Your task to perform on an android device: turn off notifications in google photos Image 0: 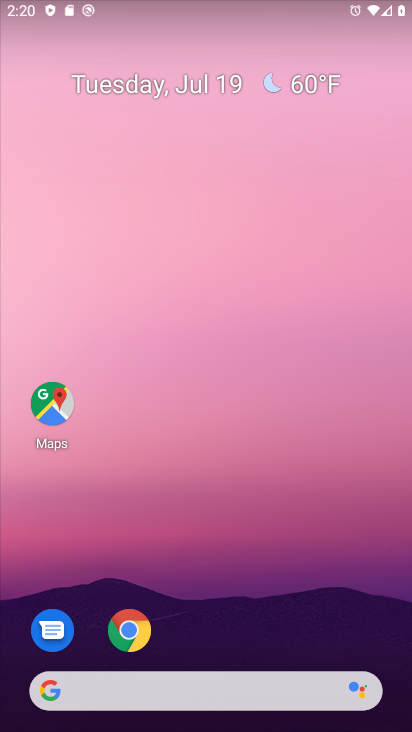
Step 0: drag from (339, 667) to (228, 267)
Your task to perform on an android device: turn off notifications in google photos Image 1: 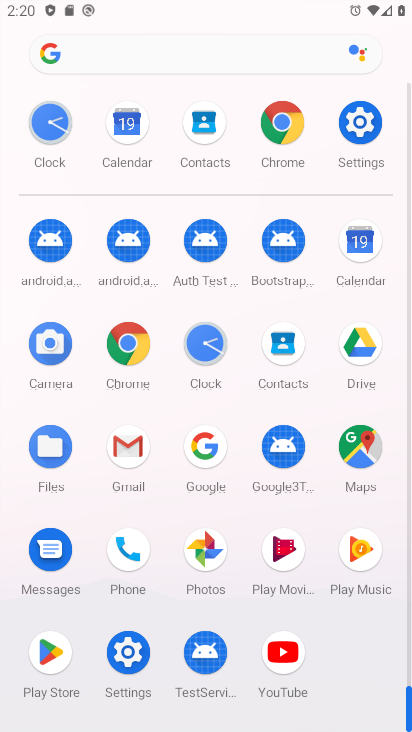
Step 1: click (203, 572)
Your task to perform on an android device: turn off notifications in google photos Image 2: 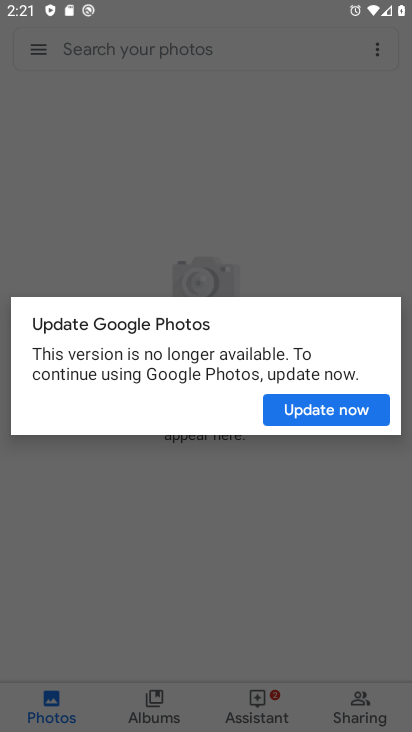
Step 2: click (218, 180)
Your task to perform on an android device: turn off notifications in google photos Image 3: 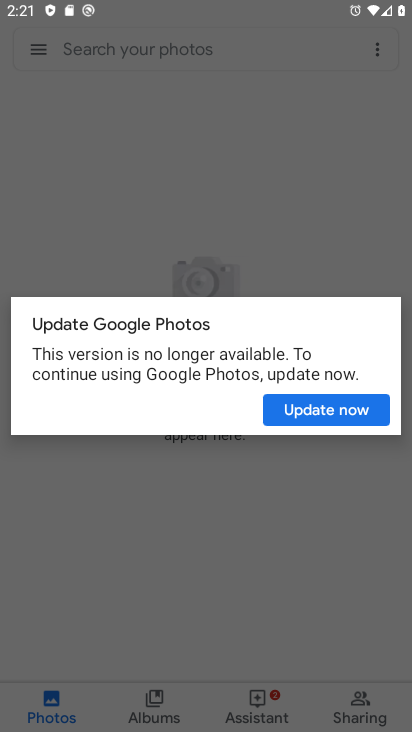
Step 3: click (219, 179)
Your task to perform on an android device: turn off notifications in google photos Image 4: 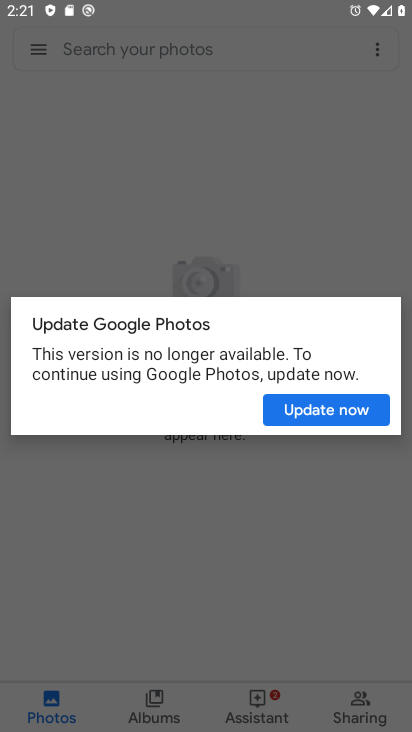
Step 4: click (166, 196)
Your task to perform on an android device: turn off notifications in google photos Image 5: 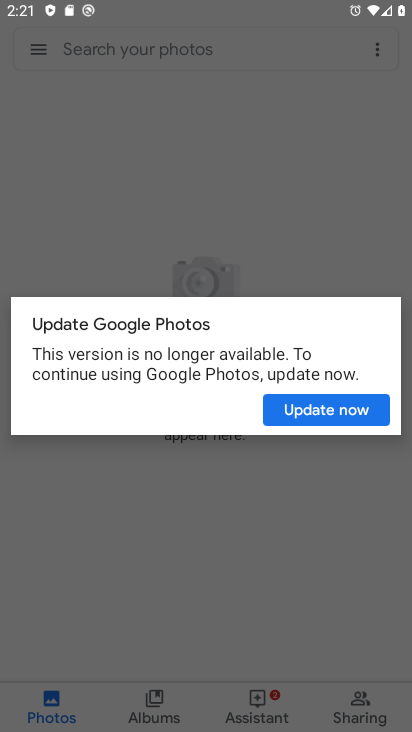
Step 5: click (165, 197)
Your task to perform on an android device: turn off notifications in google photos Image 6: 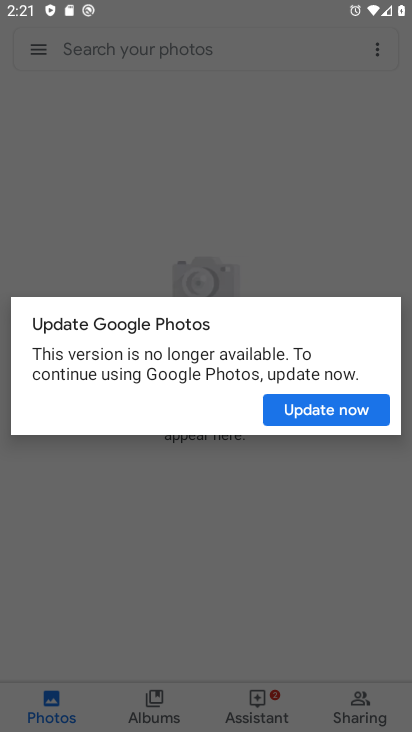
Step 6: click (165, 197)
Your task to perform on an android device: turn off notifications in google photos Image 7: 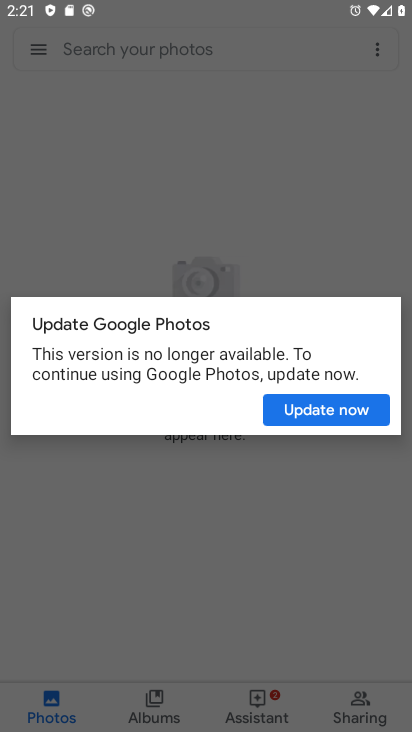
Step 7: click (330, 392)
Your task to perform on an android device: turn off notifications in google photos Image 8: 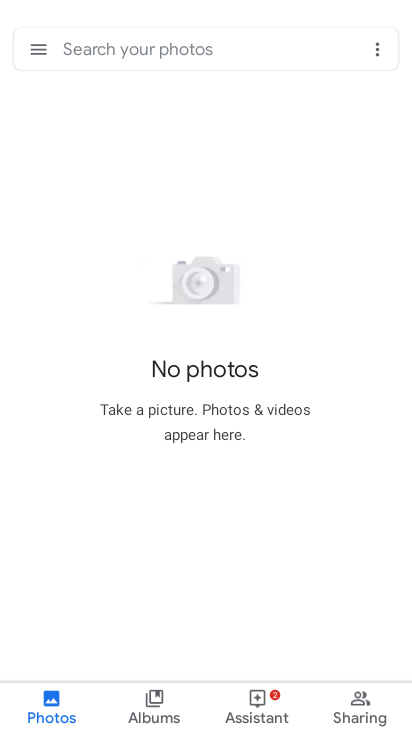
Step 8: click (330, 393)
Your task to perform on an android device: turn off notifications in google photos Image 9: 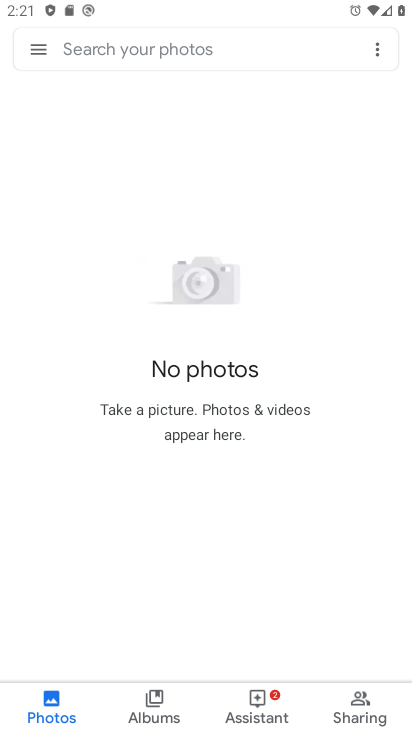
Step 9: click (38, 44)
Your task to perform on an android device: turn off notifications in google photos Image 10: 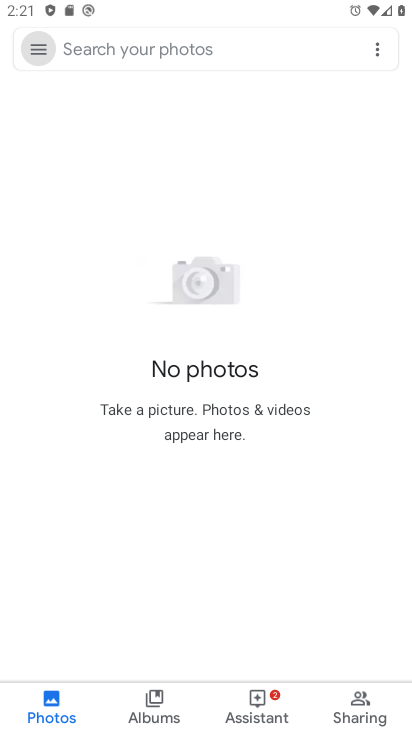
Step 10: click (37, 46)
Your task to perform on an android device: turn off notifications in google photos Image 11: 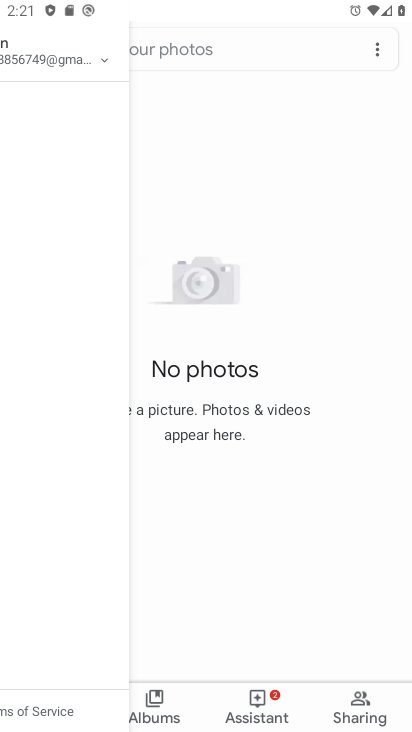
Step 11: click (36, 47)
Your task to perform on an android device: turn off notifications in google photos Image 12: 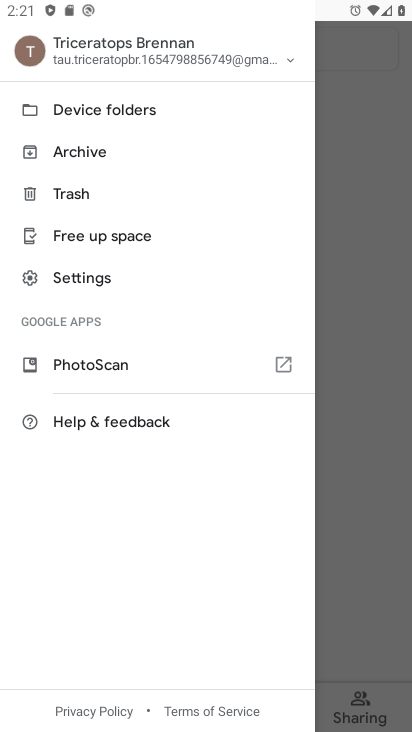
Step 12: drag from (36, 47) to (79, 279)
Your task to perform on an android device: turn off notifications in google photos Image 13: 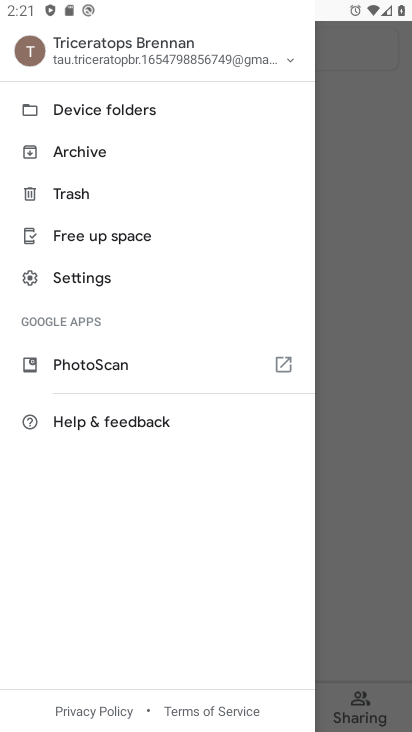
Step 13: click (79, 278)
Your task to perform on an android device: turn off notifications in google photos Image 14: 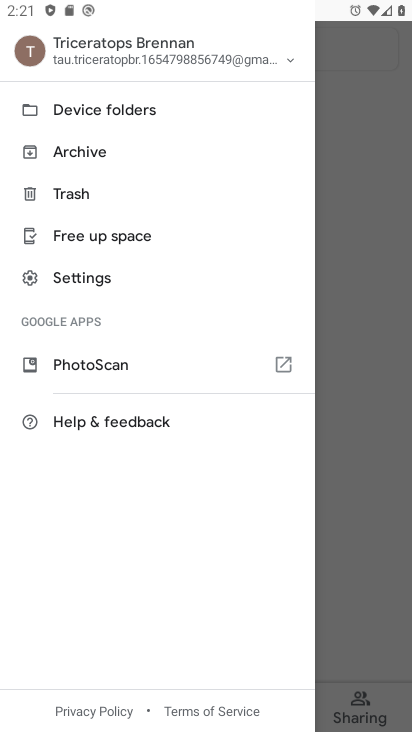
Step 14: click (79, 278)
Your task to perform on an android device: turn off notifications in google photos Image 15: 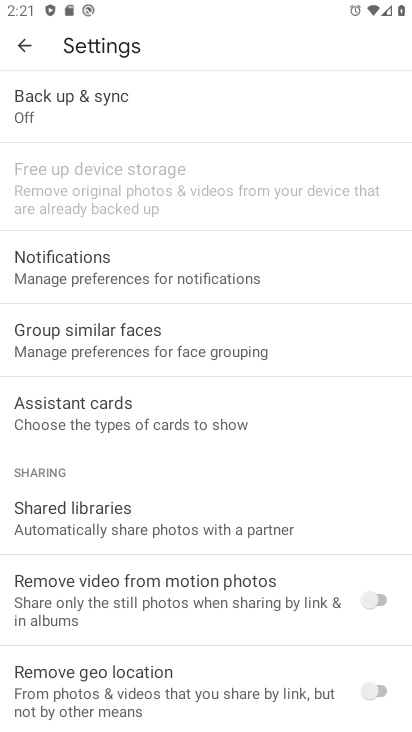
Step 15: click (65, 273)
Your task to perform on an android device: turn off notifications in google photos Image 16: 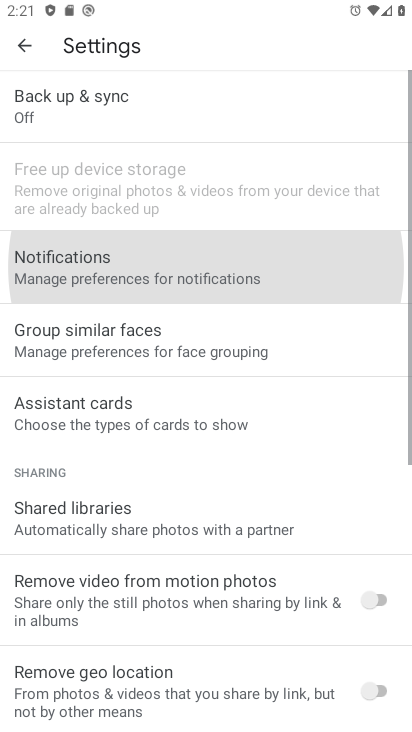
Step 16: click (65, 273)
Your task to perform on an android device: turn off notifications in google photos Image 17: 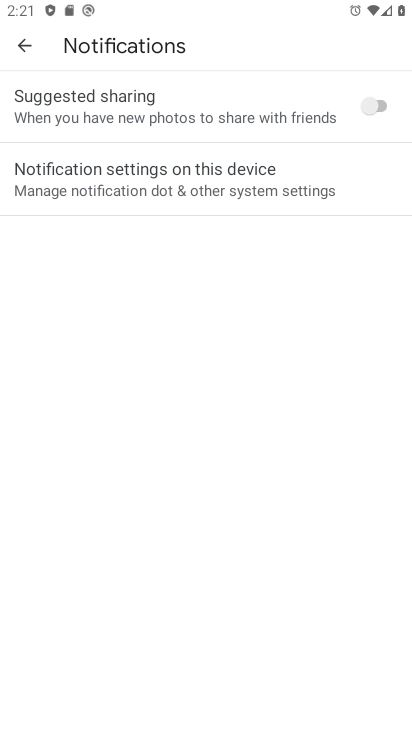
Step 17: click (163, 167)
Your task to perform on an android device: turn off notifications in google photos Image 18: 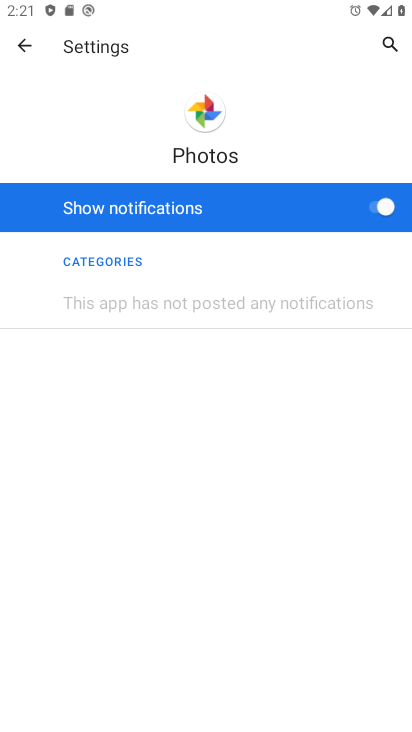
Step 18: click (374, 203)
Your task to perform on an android device: turn off notifications in google photos Image 19: 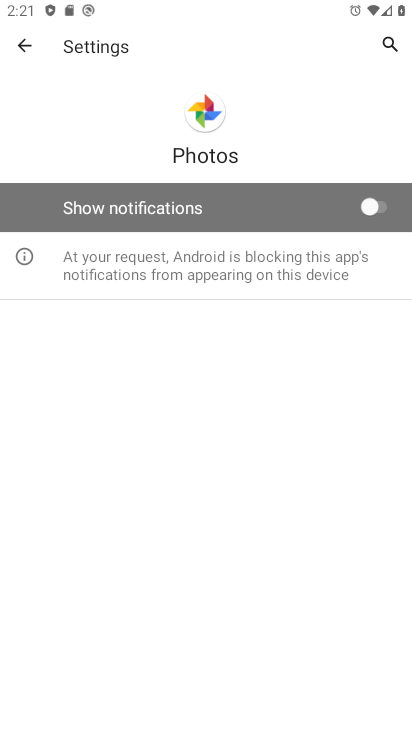
Step 19: task complete